Your task to perform on an android device: open chrome and create a bookmark for the current page Image 0: 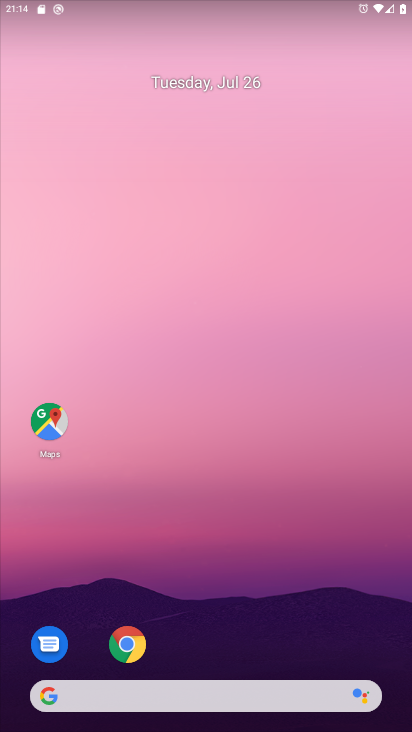
Step 0: drag from (270, 647) to (266, 242)
Your task to perform on an android device: open chrome and create a bookmark for the current page Image 1: 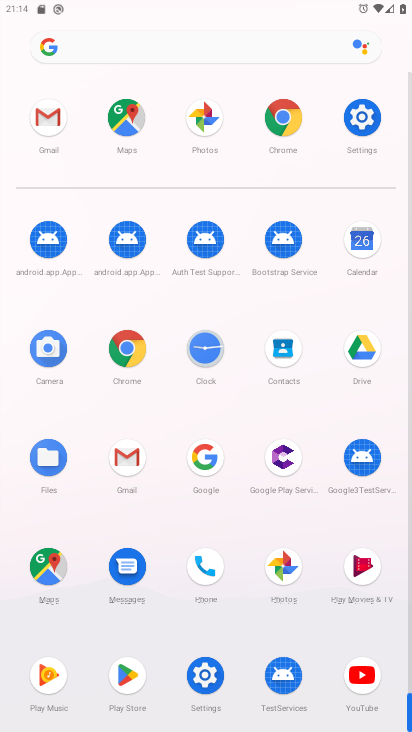
Step 1: click (293, 119)
Your task to perform on an android device: open chrome and create a bookmark for the current page Image 2: 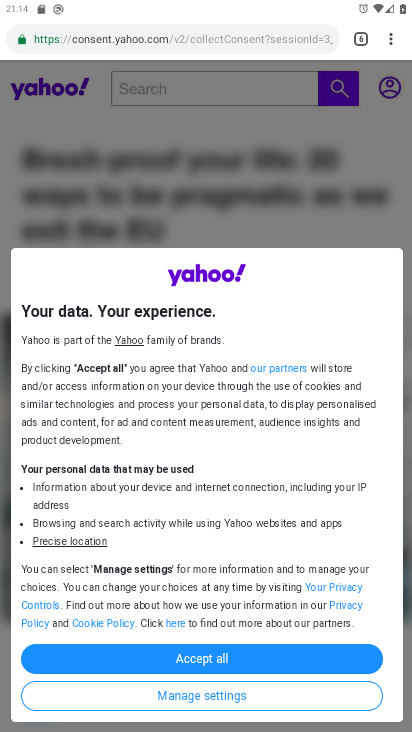
Step 2: click (397, 41)
Your task to perform on an android device: open chrome and create a bookmark for the current page Image 3: 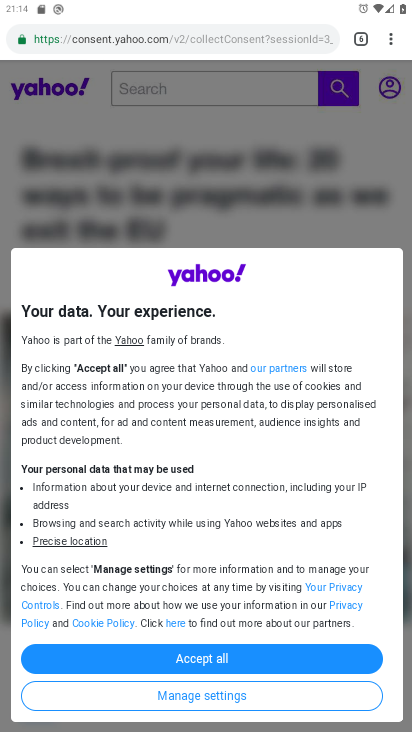
Step 3: click (387, 31)
Your task to perform on an android device: open chrome and create a bookmark for the current page Image 4: 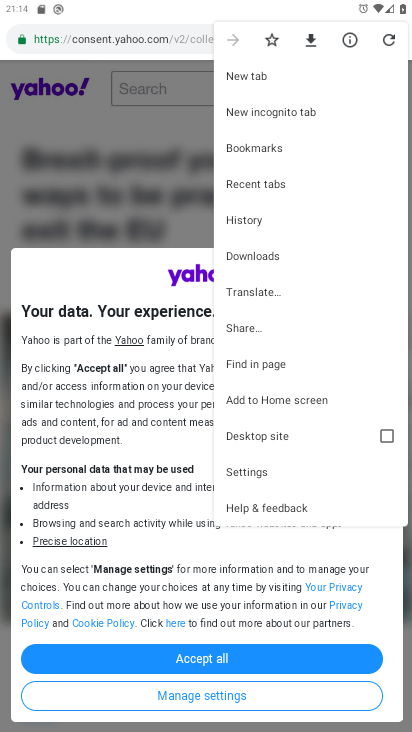
Step 4: click (274, 38)
Your task to perform on an android device: open chrome and create a bookmark for the current page Image 5: 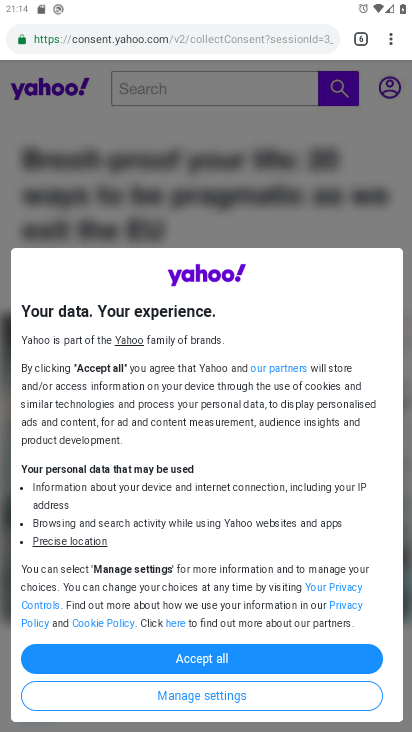
Step 5: task complete